Your task to perform on an android device: See recent photos Image 0: 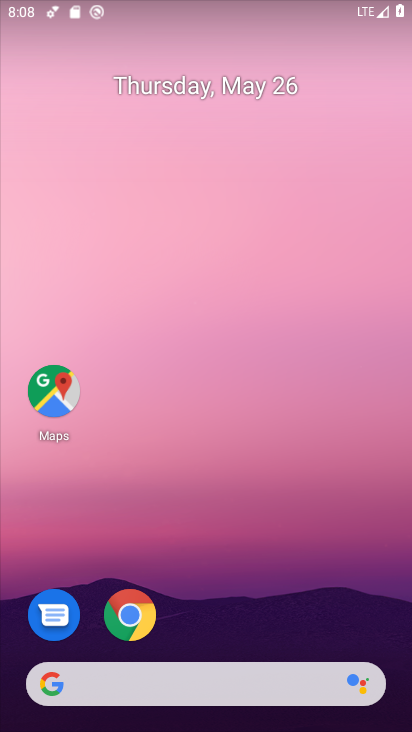
Step 0: drag from (229, 636) to (249, 234)
Your task to perform on an android device: See recent photos Image 1: 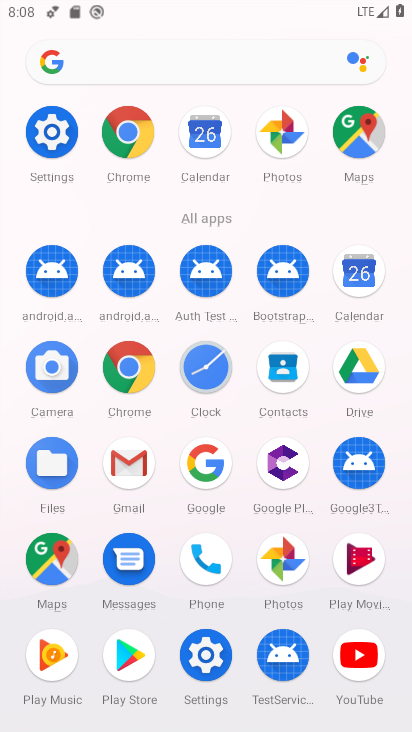
Step 1: click (273, 551)
Your task to perform on an android device: See recent photos Image 2: 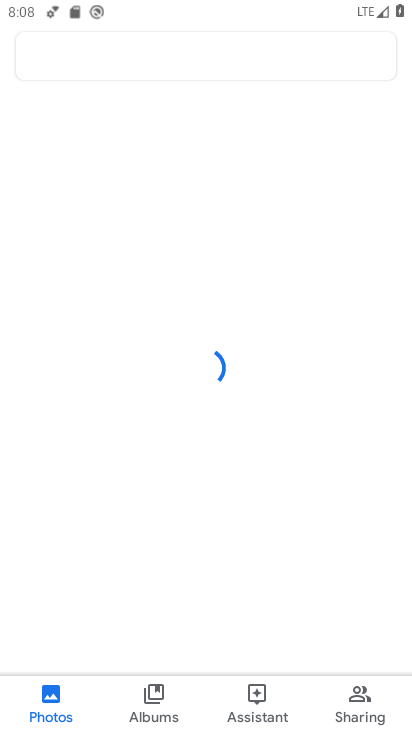
Step 2: click (157, 684)
Your task to perform on an android device: See recent photos Image 3: 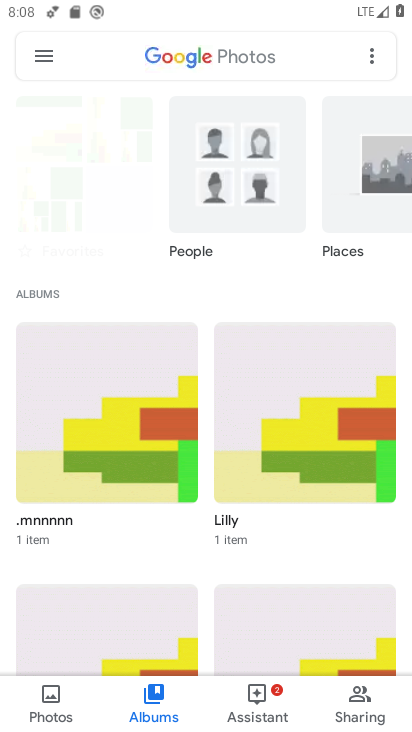
Step 3: click (54, 704)
Your task to perform on an android device: See recent photos Image 4: 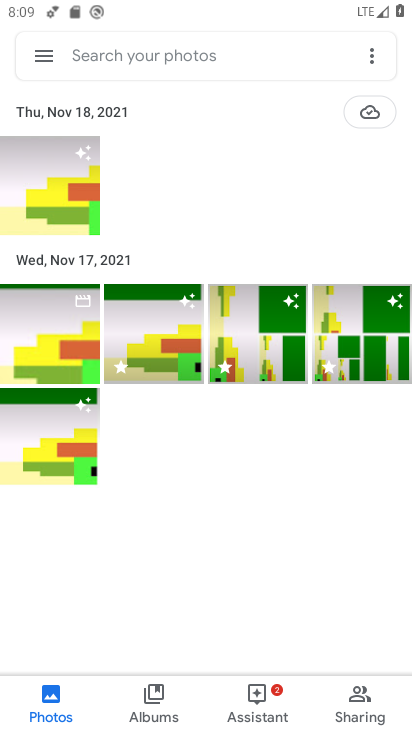
Step 4: task complete